Your task to perform on an android device: clear all cookies in the chrome app Image 0: 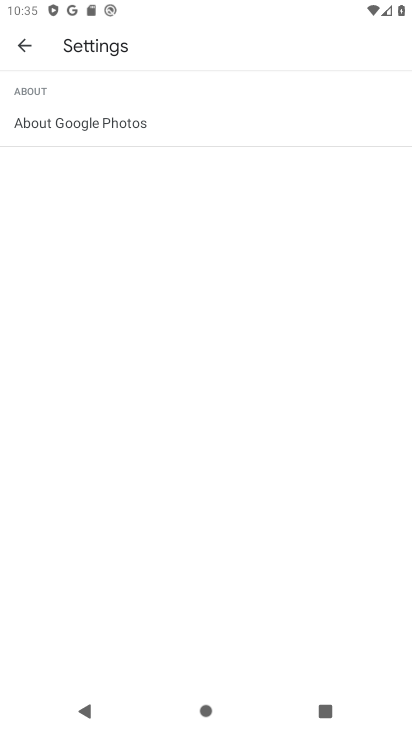
Step 0: press home button
Your task to perform on an android device: clear all cookies in the chrome app Image 1: 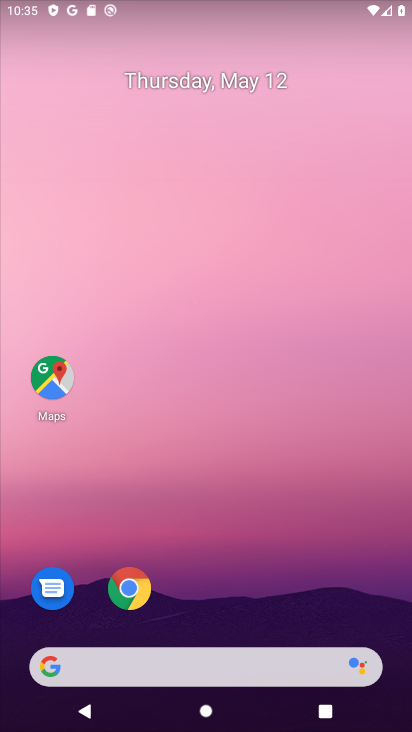
Step 1: click (130, 602)
Your task to perform on an android device: clear all cookies in the chrome app Image 2: 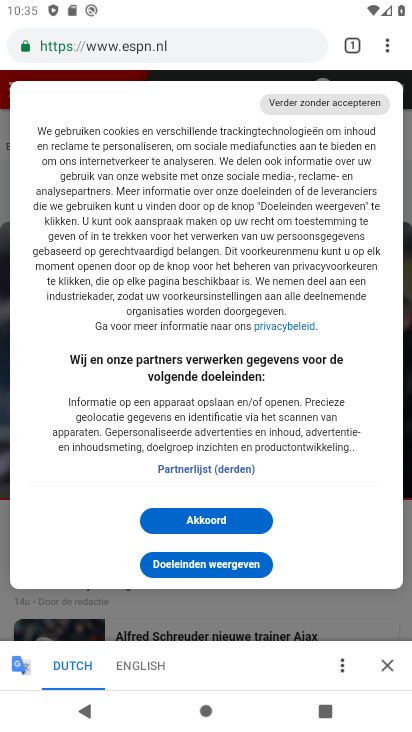
Step 2: drag from (389, 53) to (305, 255)
Your task to perform on an android device: clear all cookies in the chrome app Image 3: 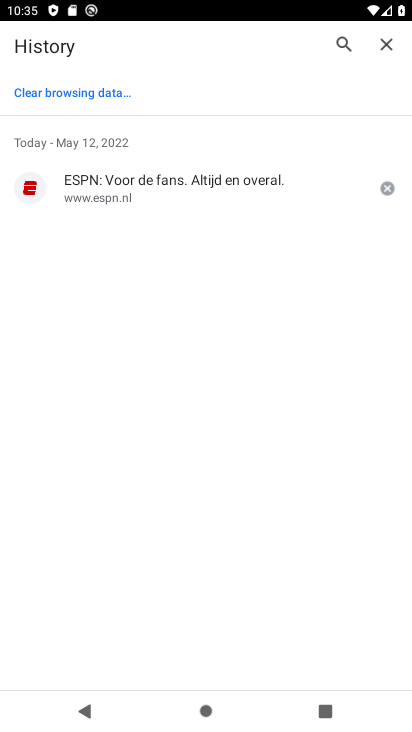
Step 3: click (81, 93)
Your task to perform on an android device: clear all cookies in the chrome app Image 4: 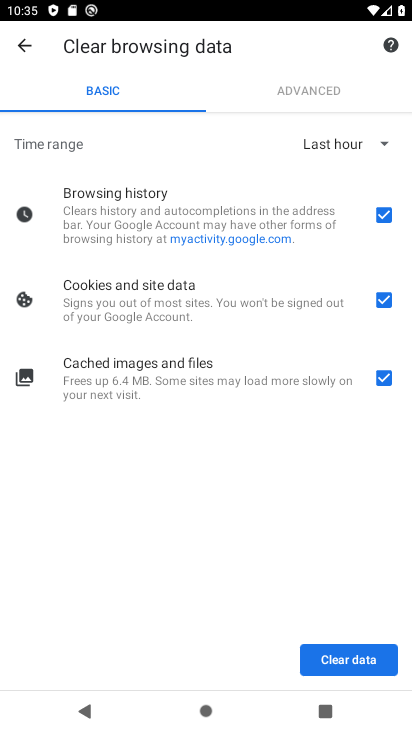
Step 4: click (378, 218)
Your task to perform on an android device: clear all cookies in the chrome app Image 5: 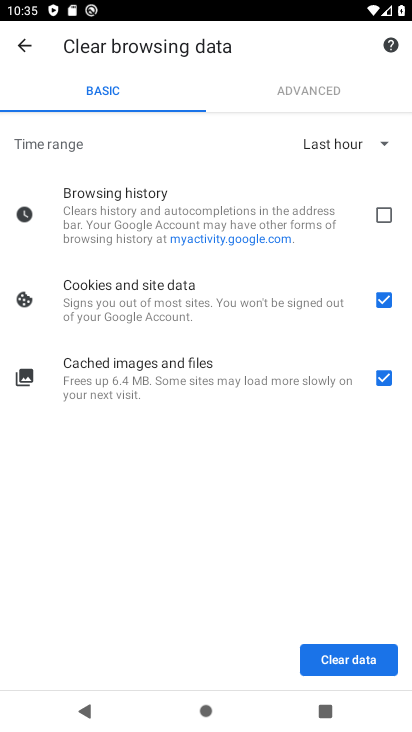
Step 5: click (386, 377)
Your task to perform on an android device: clear all cookies in the chrome app Image 6: 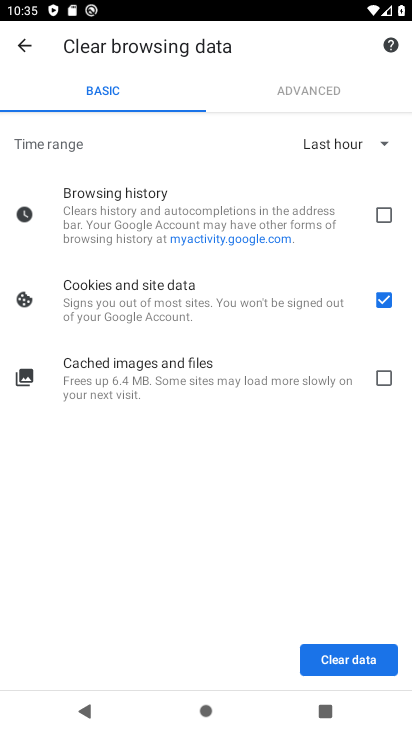
Step 6: click (361, 669)
Your task to perform on an android device: clear all cookies in the chrome app Image 7: 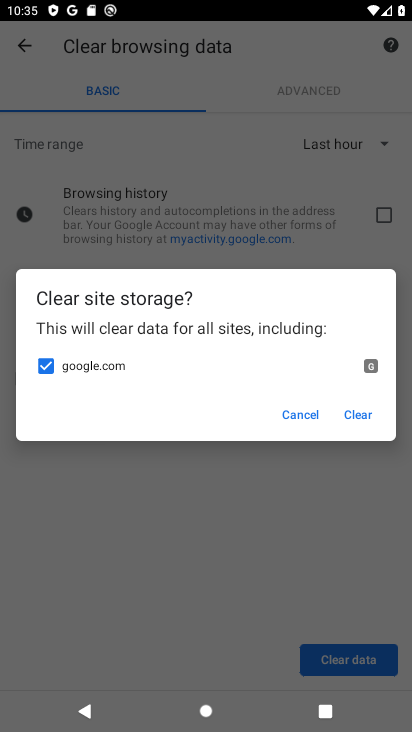
Step 7: click (356, 418)
Your task to perform on an android device: clear all cookies in the chrome app Image 8: 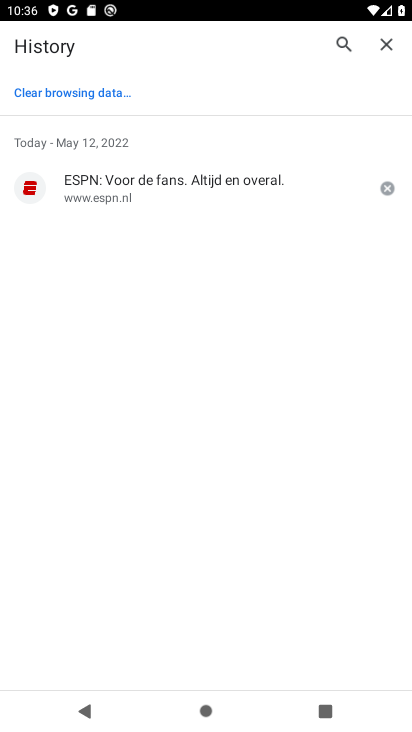
Step 8: task complete